Your task to perform on an android device: turn off javascript in the chrome app Image 0: 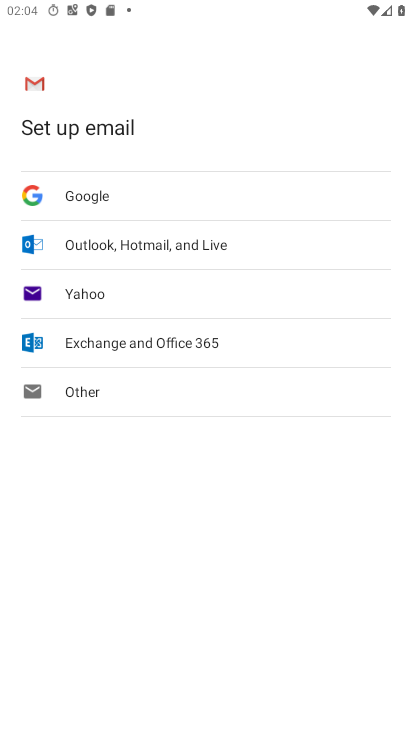
Step 0: press home button
Your task to perform on an android device: turn off javascript in the chrome app Image 1: 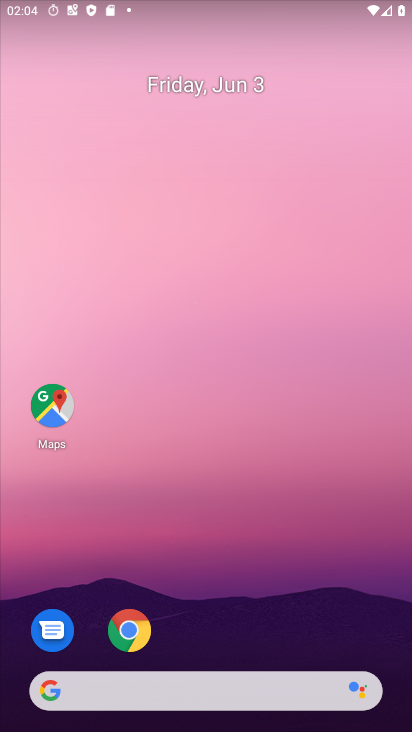
Step 1: drag from (241, 648) to (149, 166)
Your task to perform on an android device: turn off javascript in the chrome app Image 2: 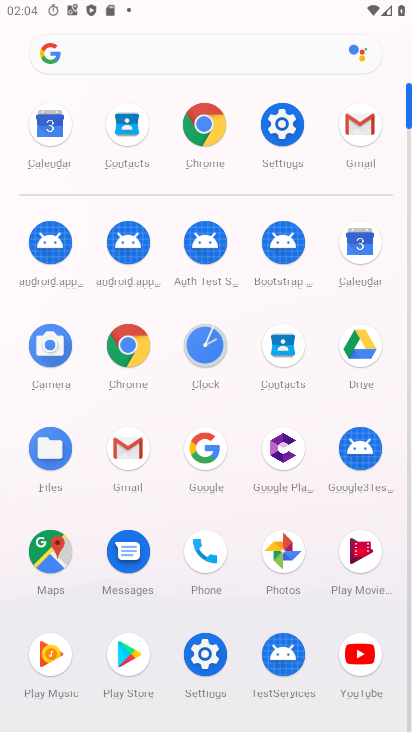
Step 2: click (214, 131)
Your task to perform on an android device: turn off javascript in the chrome app Image 3: 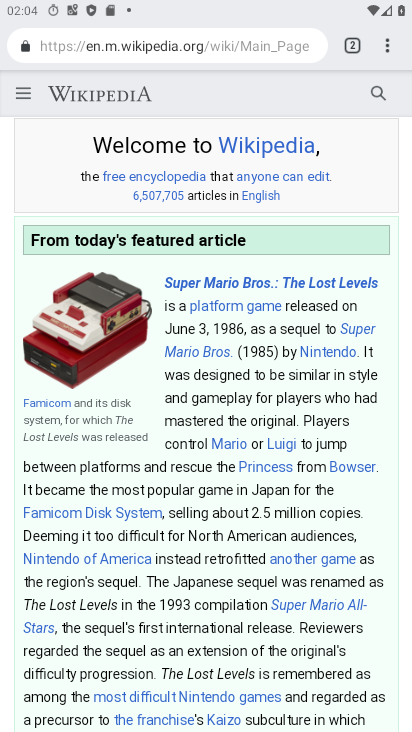
Step 3: click (386, 42)
Your task to perform on an android device: turn off javascript in the chrome app Image 4: 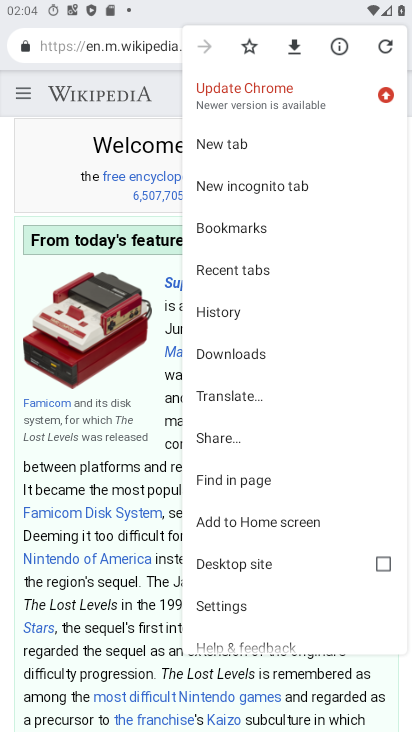
Step 4: drag from (282, 590) to (249, 313)
Your task to perform on an android device: turn off javascript in the chrome app Image 5: 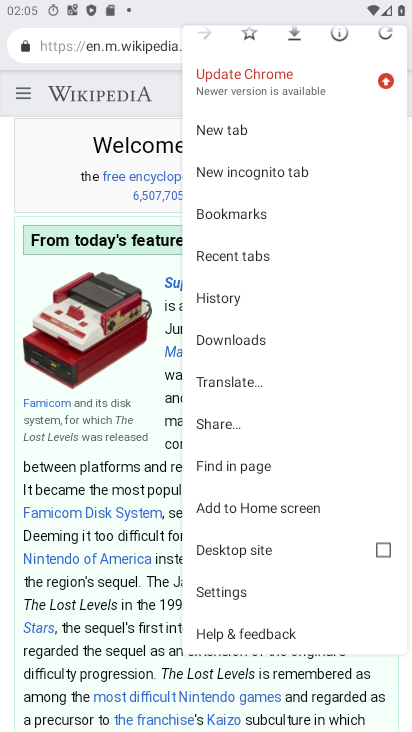
Step 5: click (239, 593)
Your task to perform on an android device: turn off javascript in the chrome app Image 6: 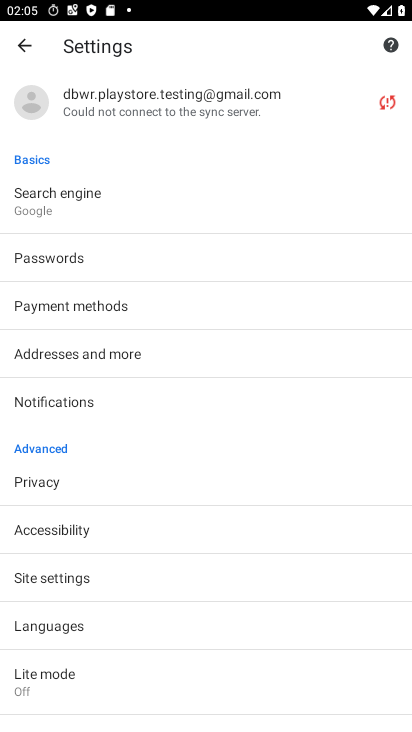
Step 6: drag from (213, 656) to (197, 454)
Your task to perform on an android device: turn off javascript in the chrome app Image 7: 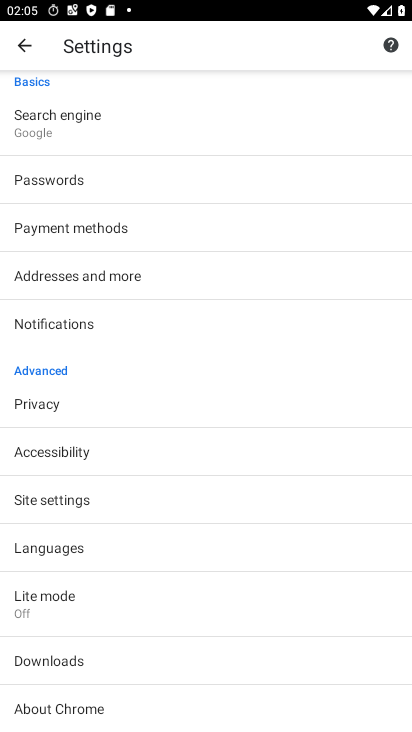
Step 7: click (176, 494)
Your task to perform on an android device: turn off javascript in the chrome app Image 8: 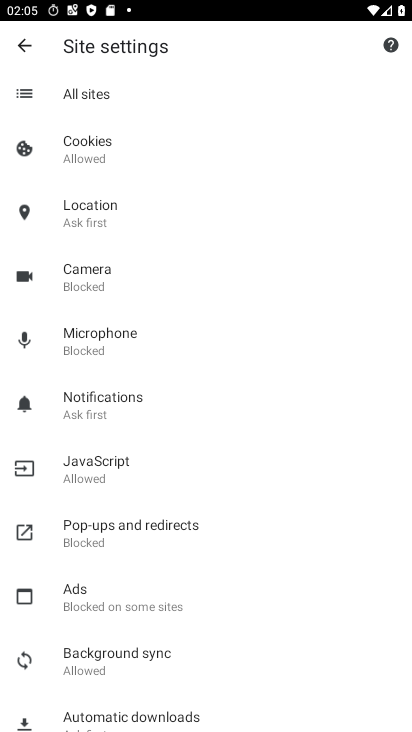
Step 8: click (166, 481)
Your task to perform on an android device: turn off javascript in the chrome app Image 9: 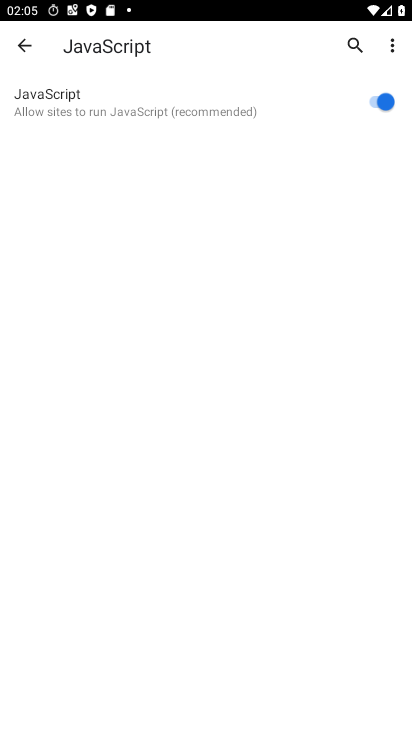
Step 9: click (381, 103)
Your task to perform on an android device: turn off javascript in the chrome app Image 10: 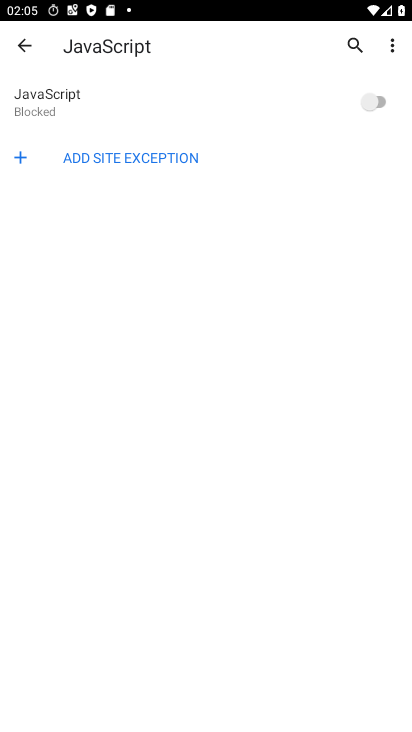
Step 10: task complete